Your task to perform on an android device: see creations saved in the google photos Image 0: 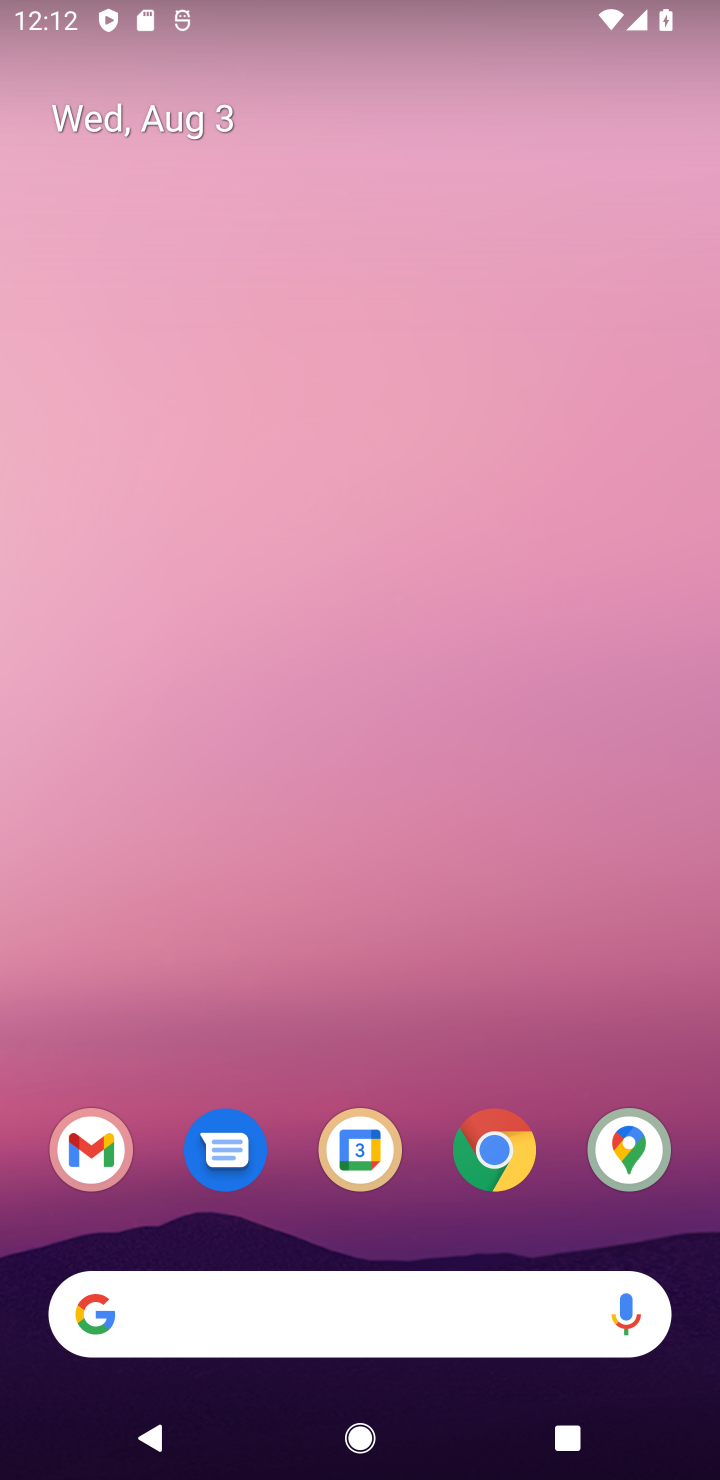
Step 0: drag from (433, 1191) to (418, 361)
Your task to perform on an android device: see creations saved in the google photos Image 1: 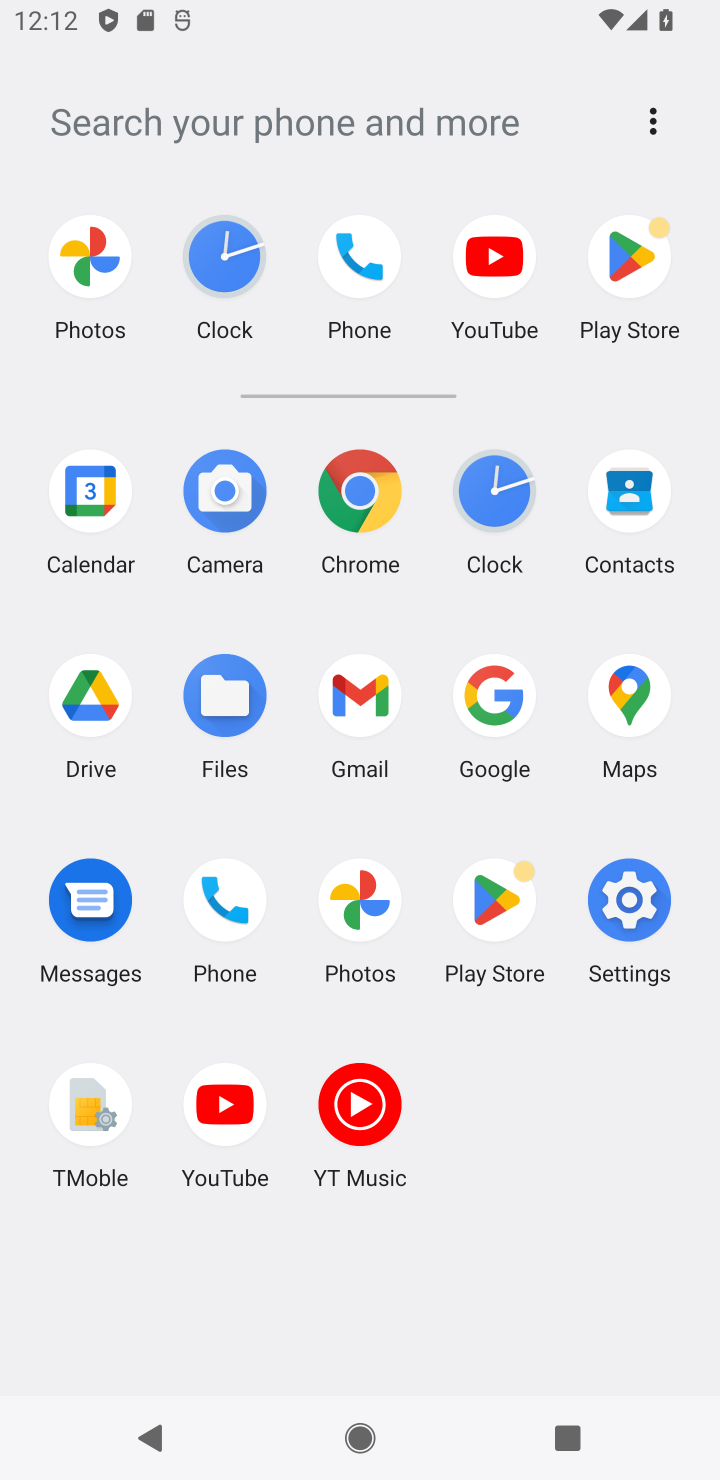
Step 1: click (351, 901)
Your task to perform on an android device: see creations saved in the google photos Image 2: 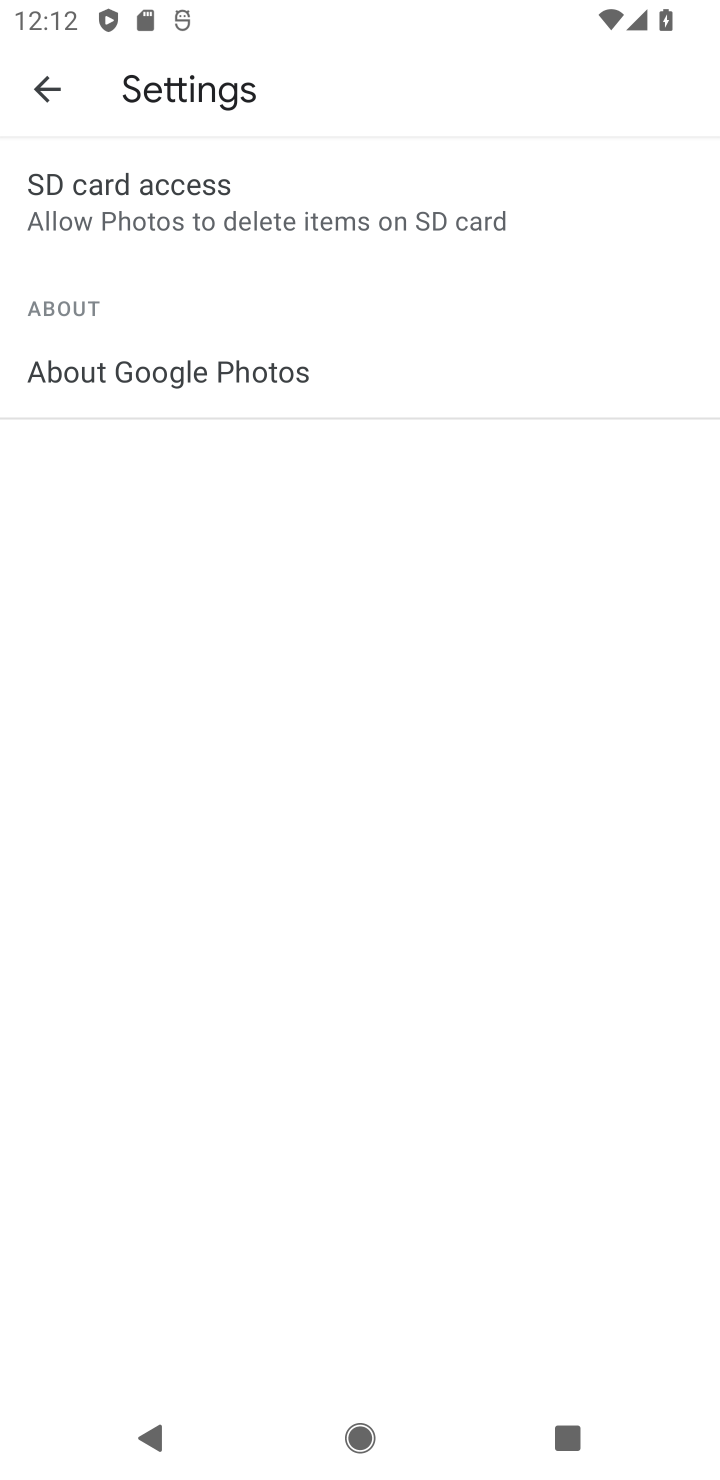
Step 2: press back button
Your task to perform on an android device: see creations saved in the google photos Image 3: 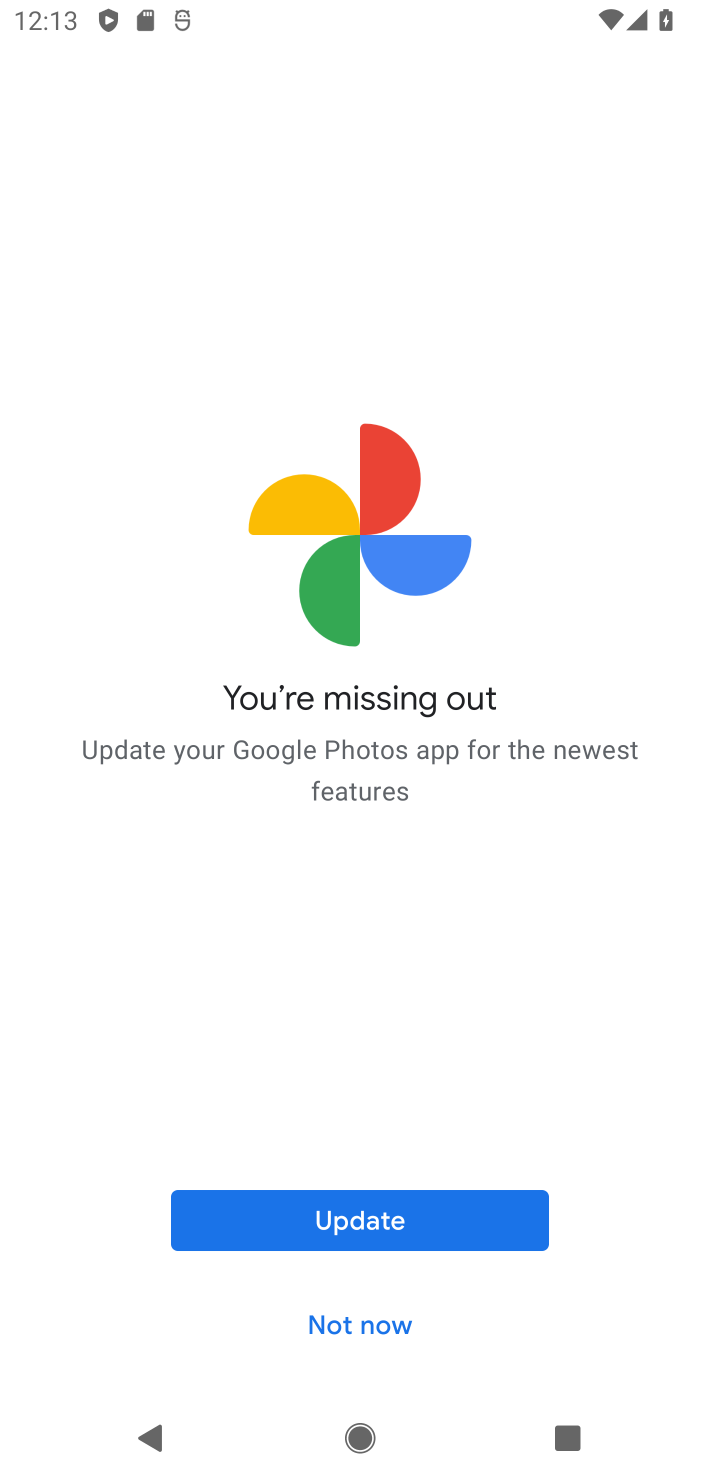
Step 3: click (355, 1323)
Your task to perform on an android device: see creations saved in the google photos Image 4: 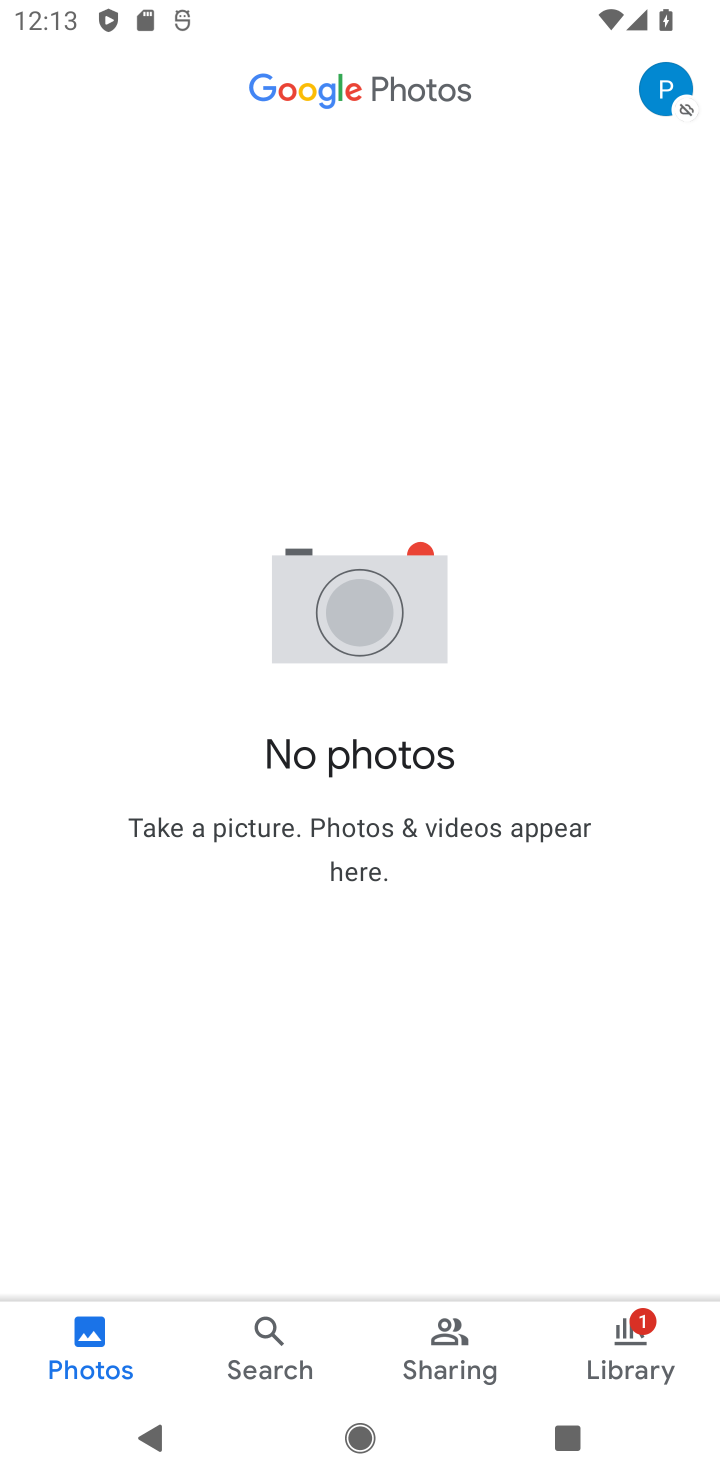
Step 4: click (256, 1343)
Your task to perform on an android device: see creations saved in the google photos Image 5: 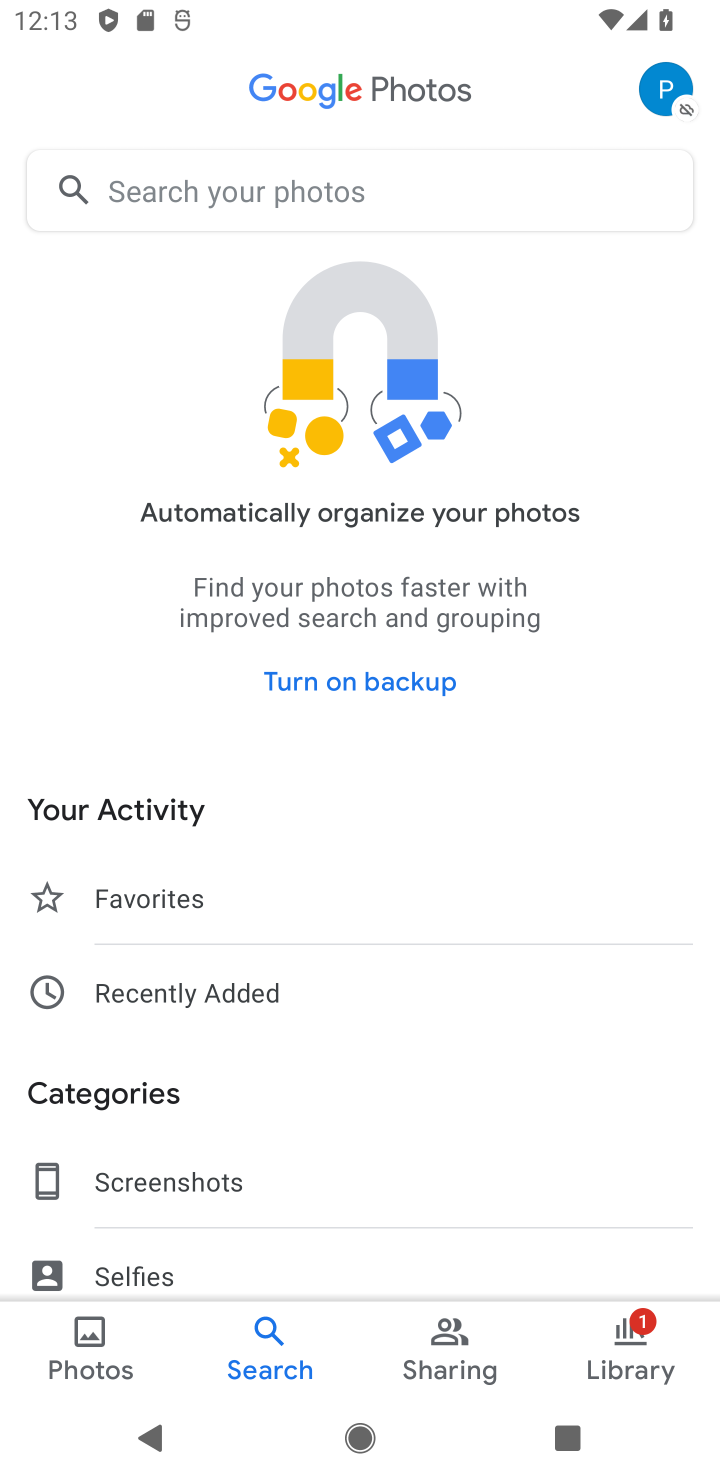
Step 5: drag from (415, 1061) to (436, 728)
Your task to perform on an android device: see creations saved in the google photos Image 6: 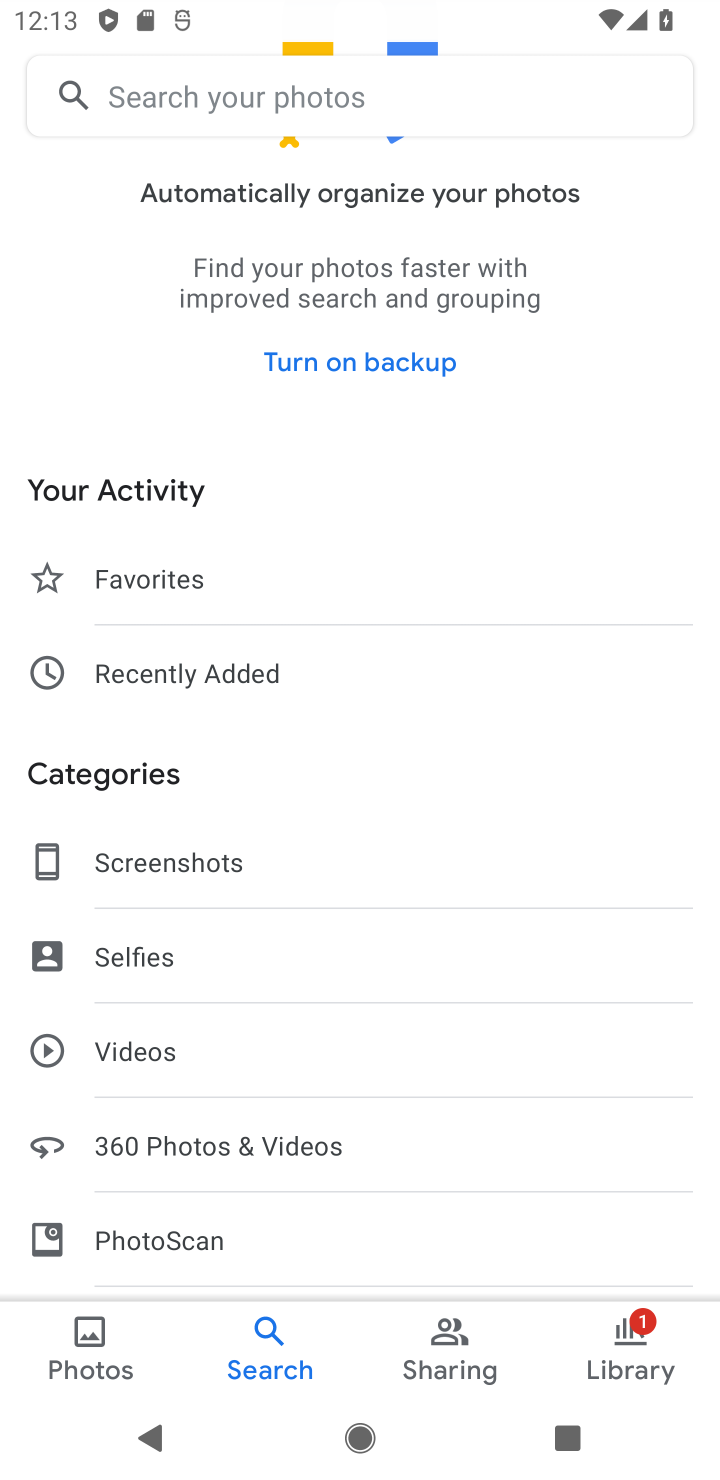
Step 6: drag from (551, 1179) to (545, 615)
Your task to perform on an android device: see creations saved in the google photos Image 7: 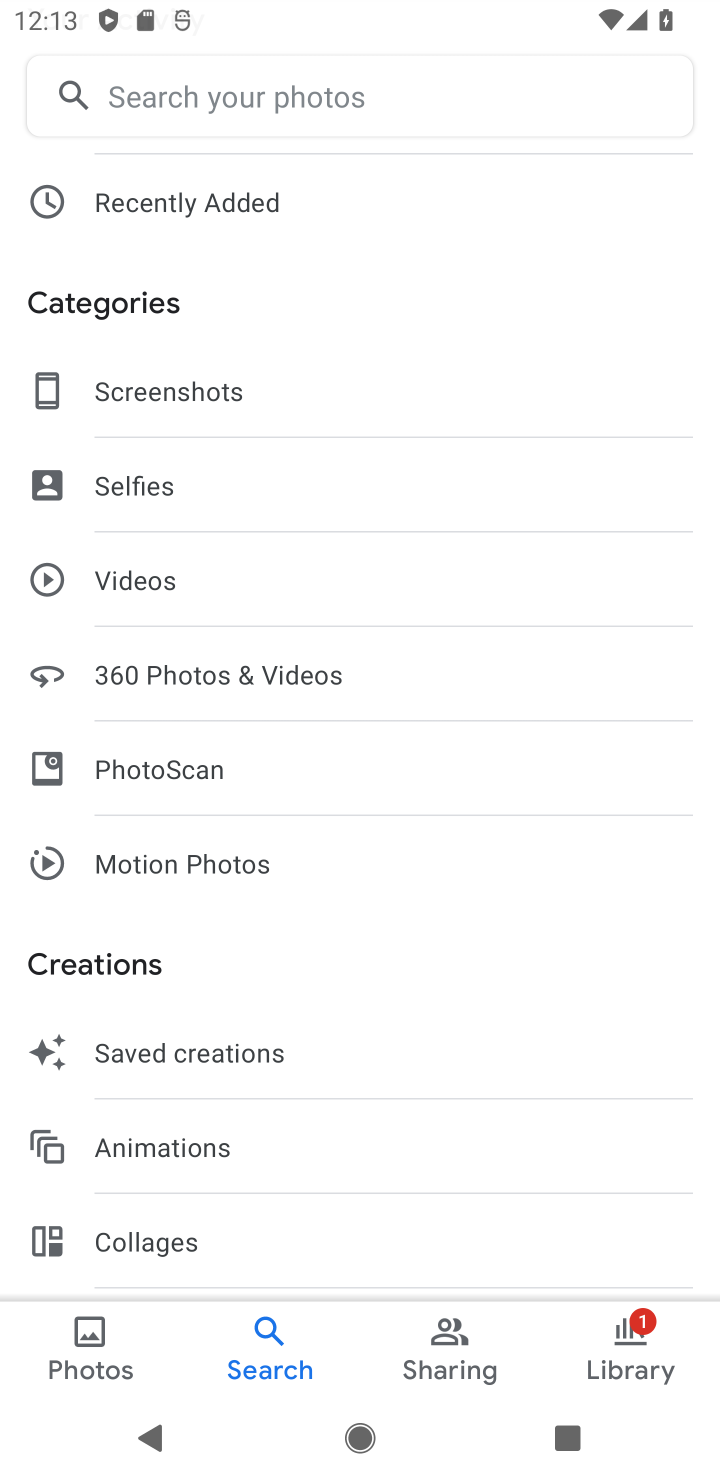
Step 7: drag from (466, 1117) to (487, 835)
Your task to perform on an android device: see creations saved in the google photos Image 8: 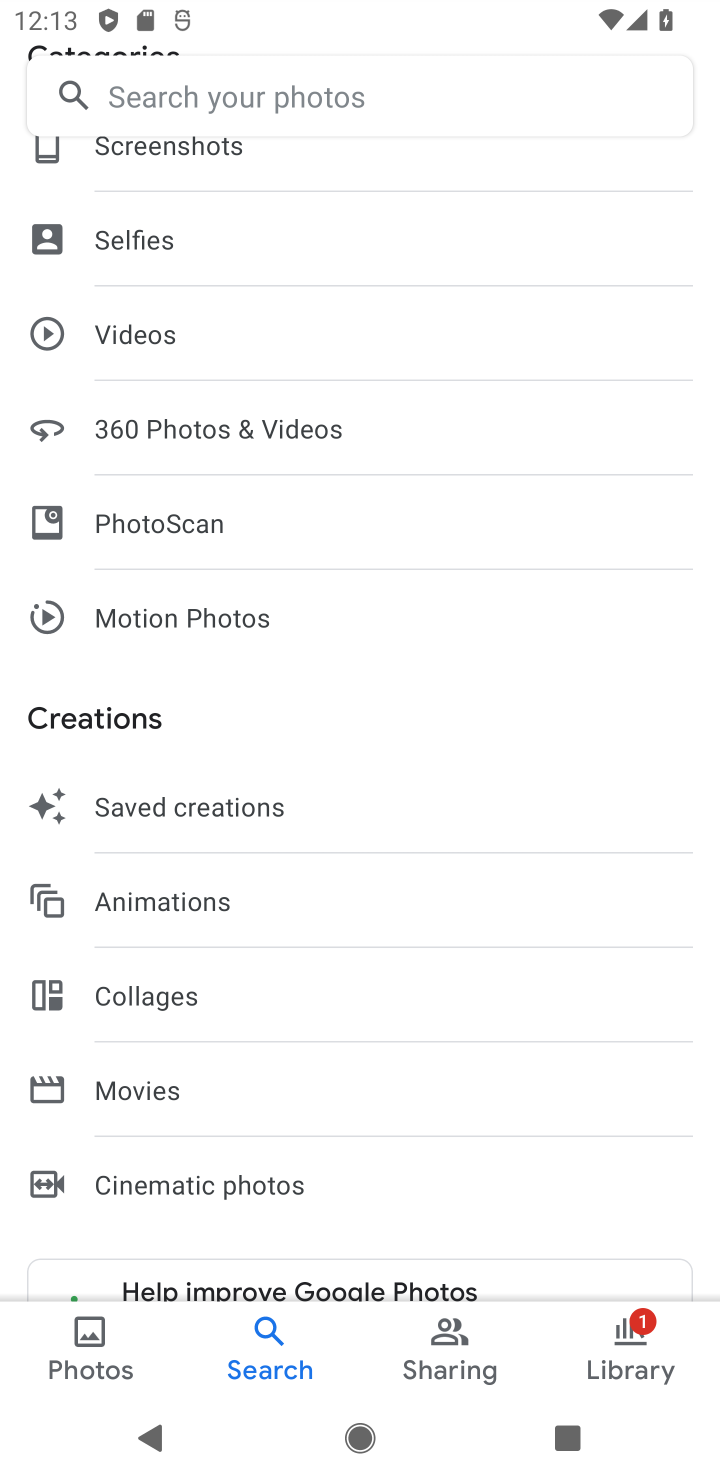
Step 8: click (403, 792)
Your task to perform on an android device: see creations saved in the google photos Image 9: 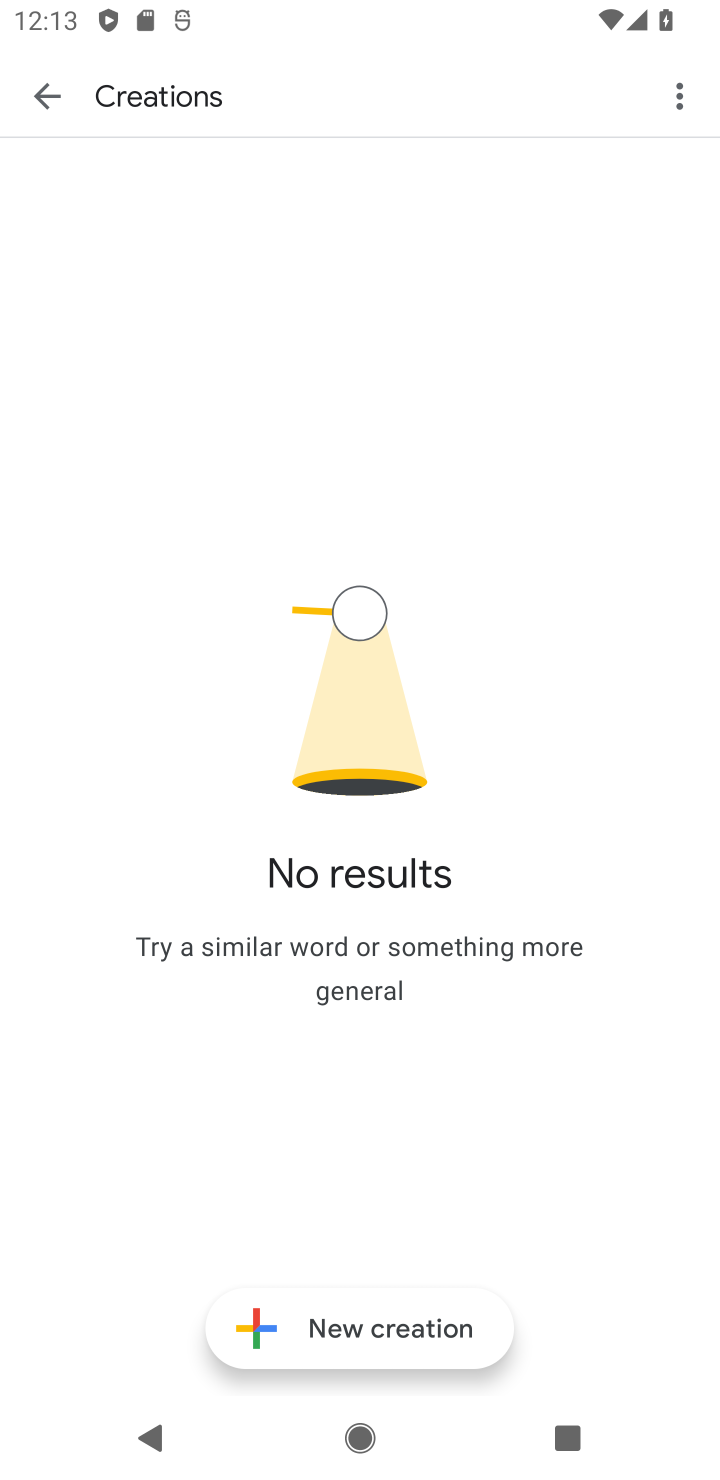
Step 9: task complete